Your task to perform on an android device: Show me popular videos on Youtube Image 0: 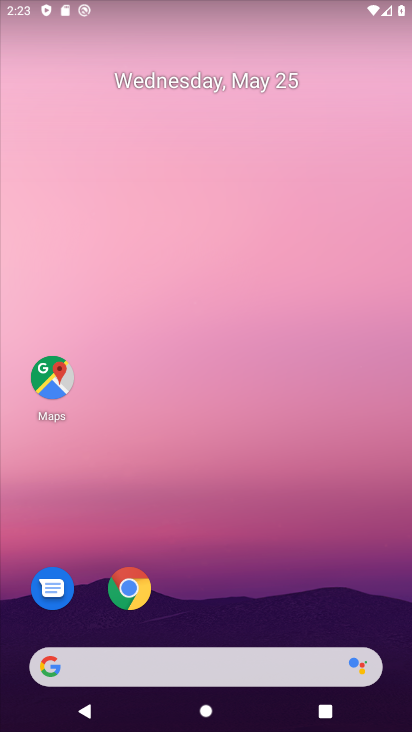
Step 0: drag from (327, 454) to (299, 107)
Your task to perform on an android device: Show me popular videos on Youtube Image 1: 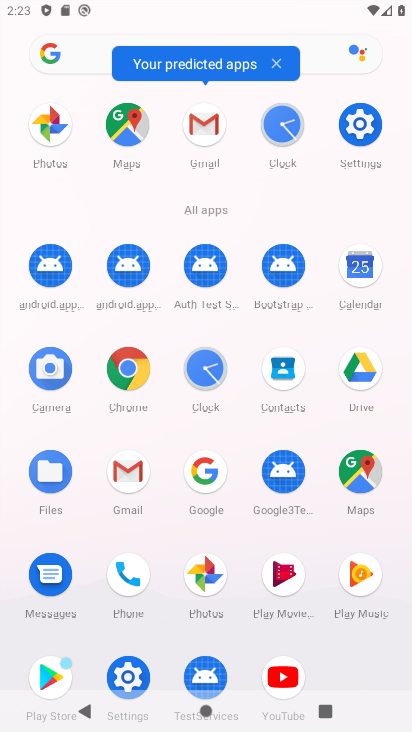
Step 1: click (281, 680)
Your task to perform on an android device: Show me popular videos on Youtube Image 2: 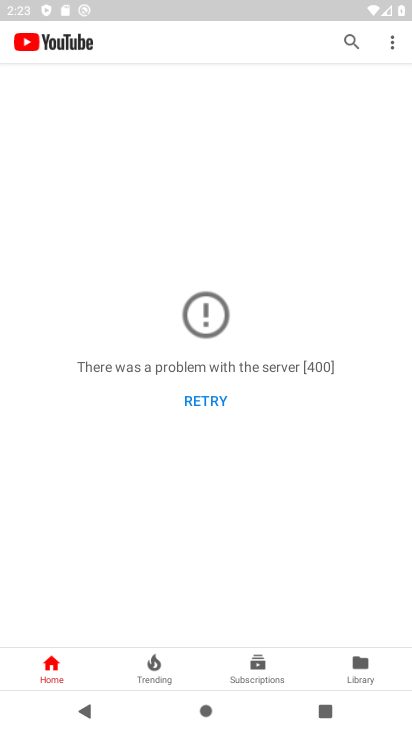
Step 2: task complete